Your task to perform on an android device: Set the phone to "Do not disturb". Image 0: 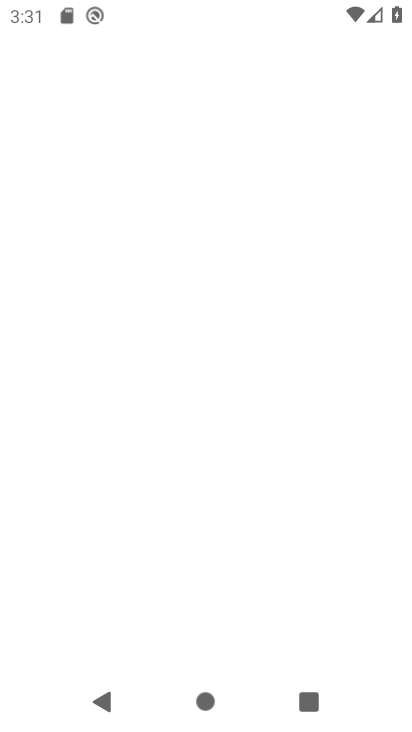
Step 0: press home button
Your task to perform on an android device: Set the phone to "Do not disturb". Image 1: 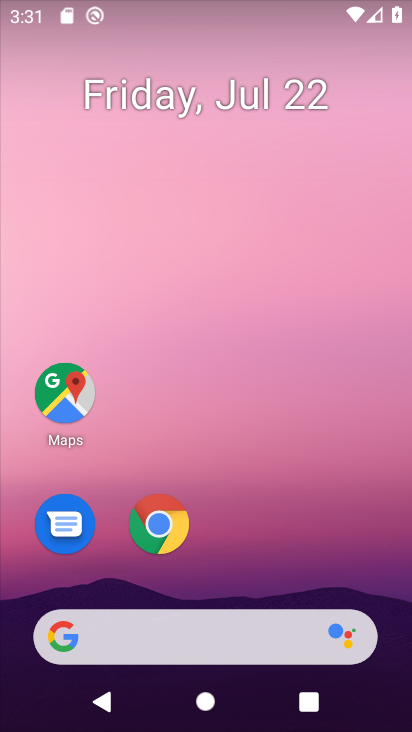
Step 1: drag from (225, 494) to (326, 7)
Your task to perform on an android device: Set the phone to "Do not disturb". Image 2: 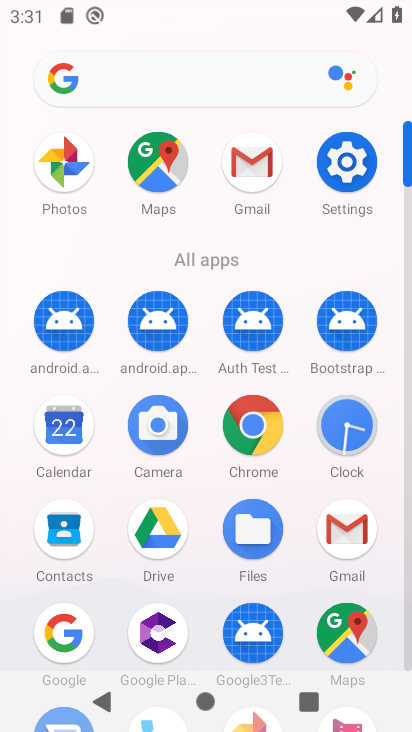
Step 2: click (355, 154)
Your task to perform on an android device: Set the phone to "Do not disturb". Image 3: 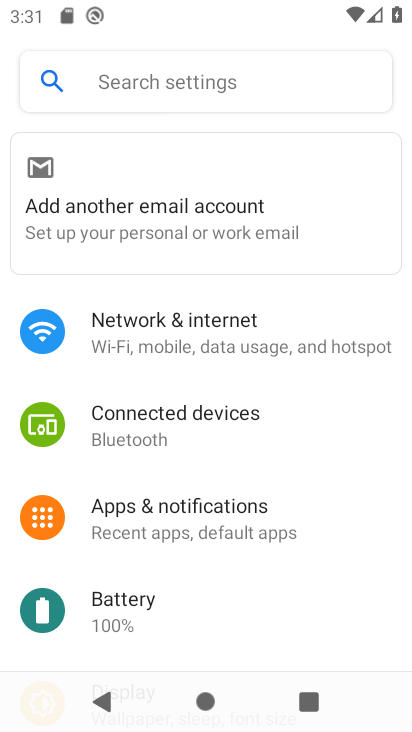
Step 3: drag from (210, 610) to (325, 110)
Your task to perform on an android device: Set the phone to "Do not disturb". Image 4: 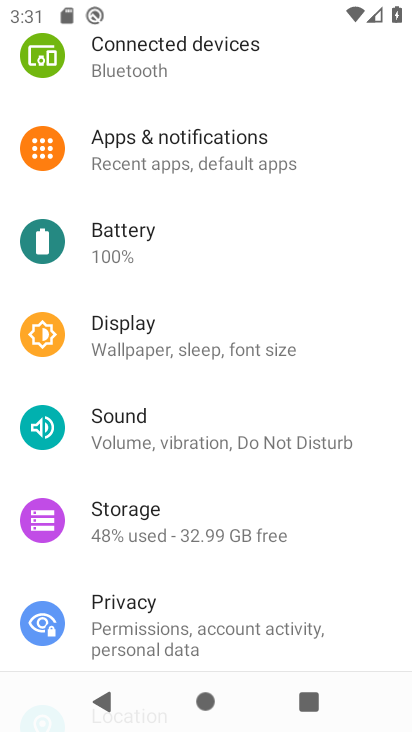
Step 4: drag from (179, 593) to (293, 130)
Your task to perform on an android device: Set the phone to "Do not disturb". Image 5: 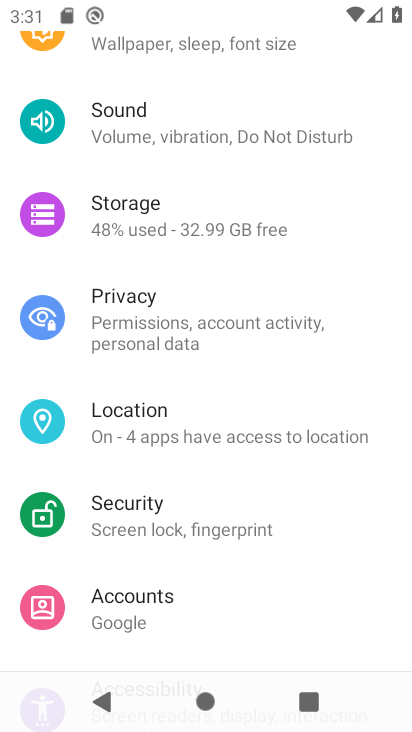
Step 5: click (162, 119)
Your task to perform on an android device: Set the phone to "Do not disturb". Image 6: 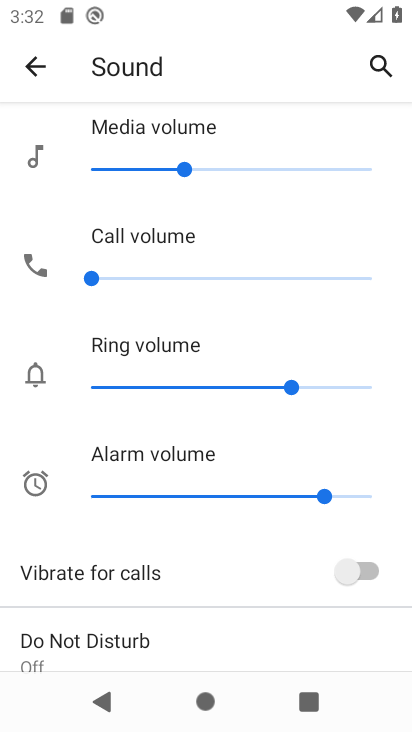
Step 6: drag from (219, 606) to (322, 133)
Your task to perform on an android device: Set the phone to "Do not disturb". Image 7: 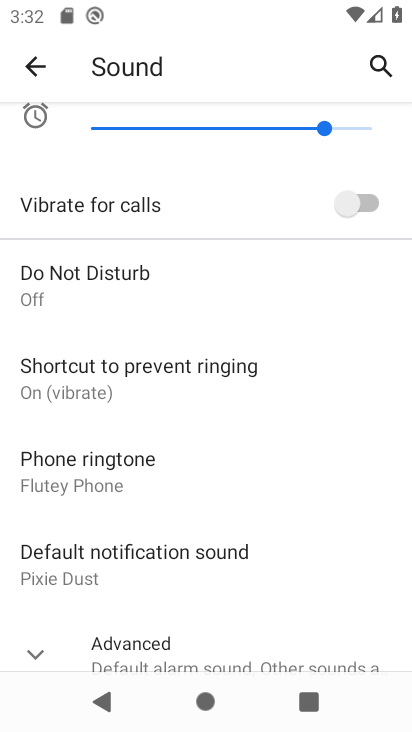
Step 7: drag from (216, 503) to (325, 76)
Your task to perform on an android device: Set the phone to "Do not disturb". Image 8: 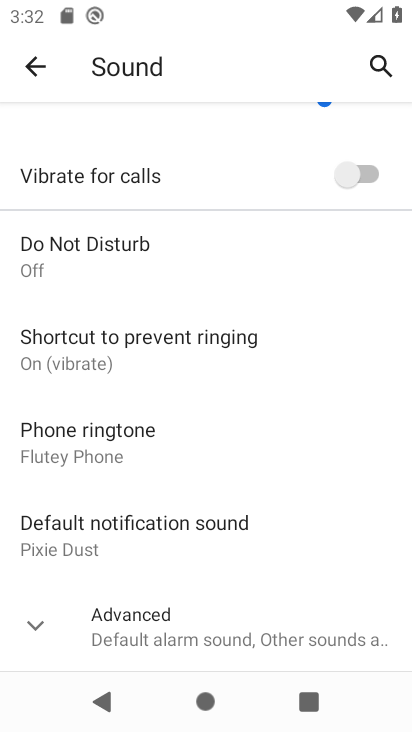
Step 8: click (57, 255)
Your task to perform on an android device: Set the phone to "Do not disturb". Image 9: 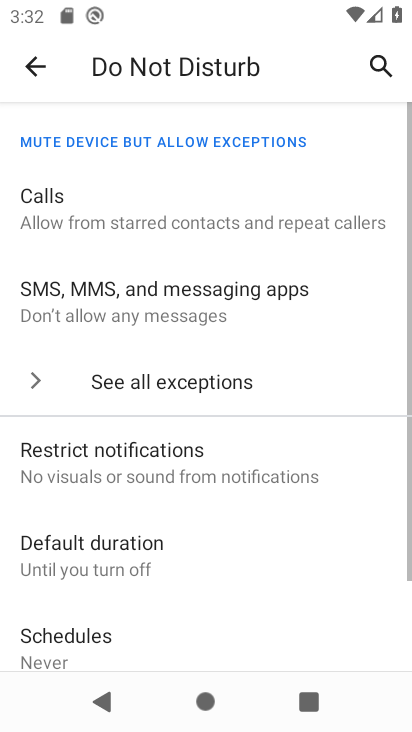
Step 9: drag from (165, 575) to (327, 51)
Your task to perform on an android device: Set the phone to "Do not disturb". Image 10: 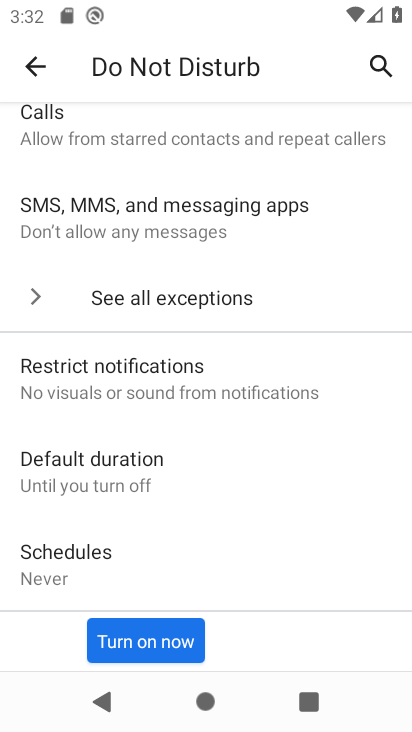
Step 10: click (163, 650)
Your task to perform on an android device: Set the phone to "Do not disturb". Image 11: 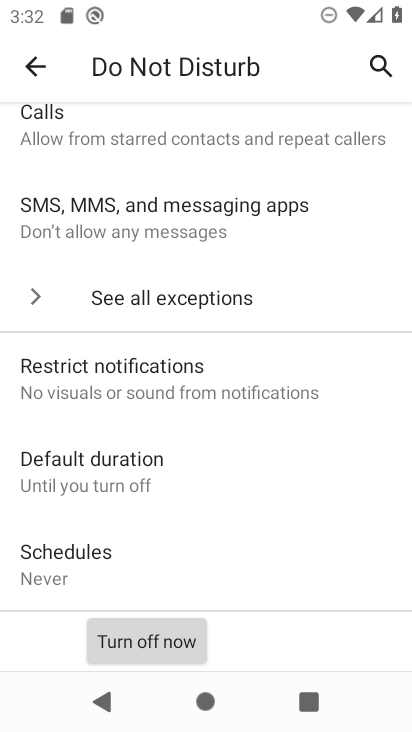
Step 11: task complete